Your task to perform on an android device: Open the web browser Image 0: 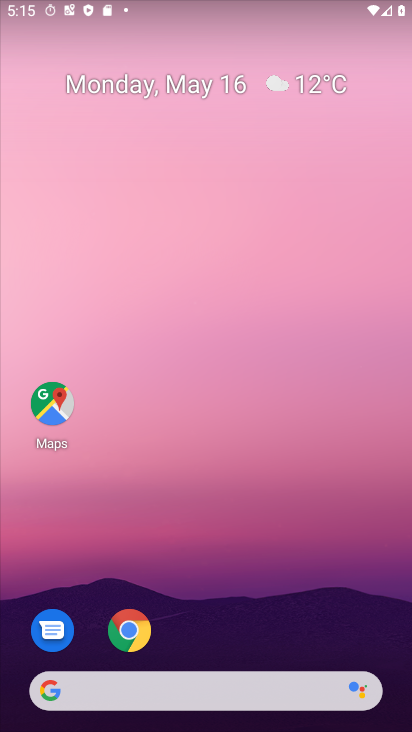
Step 0: click (130, 623)
Your task to perform on an android device: Open the web browser Image 1: 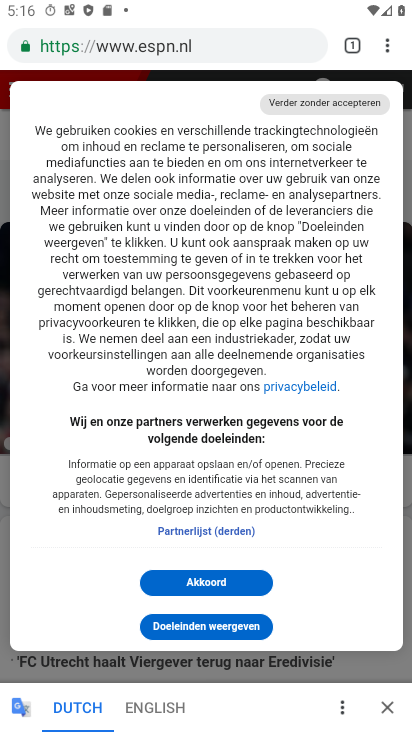
Step 1: task complete